Your task to perform on an android device: toggle notifications settings in the gmail app Image 0: 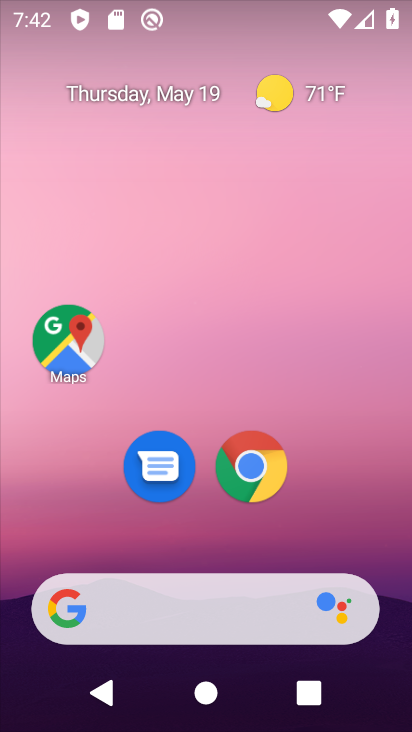
Step 0: drag from (331, 533) to (253, 9)
Your task to perform on an android device: toggle notifications settings in the gmail app Image 1: 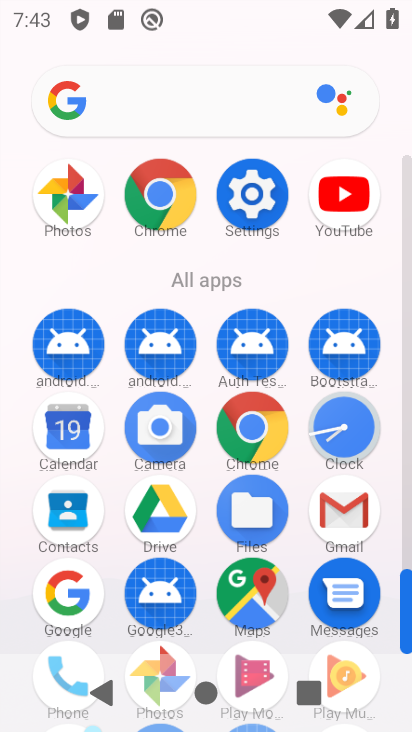
Step 1: click (343, 502)
Your task to perform on an android device: toggle notifications settings in the gmail app Image 2: 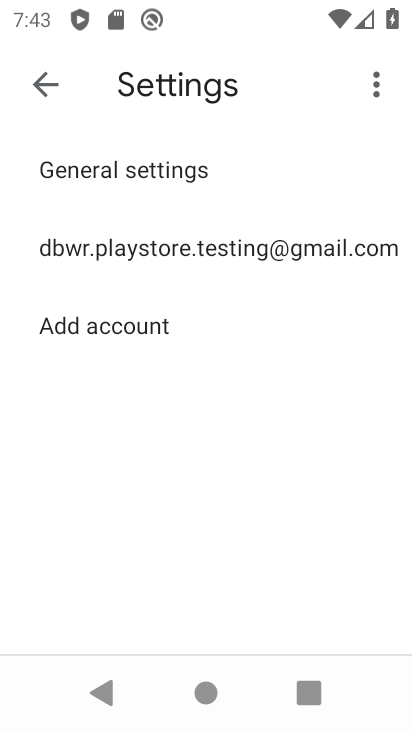
Step 2: click (140, 245)
Your task to perform on an android device: toggle notifications settings in the gmail app Image 3: 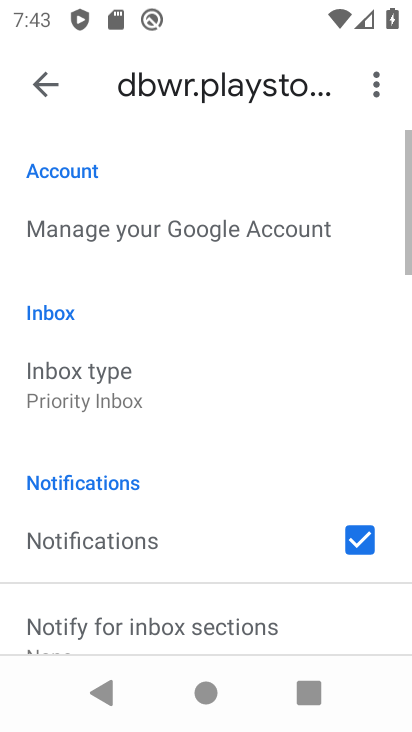
Step 3: drag from (197, 586) to (230, 150)
Your task to perform on an android device: toggle notifications settings in the gmail app Image 4: 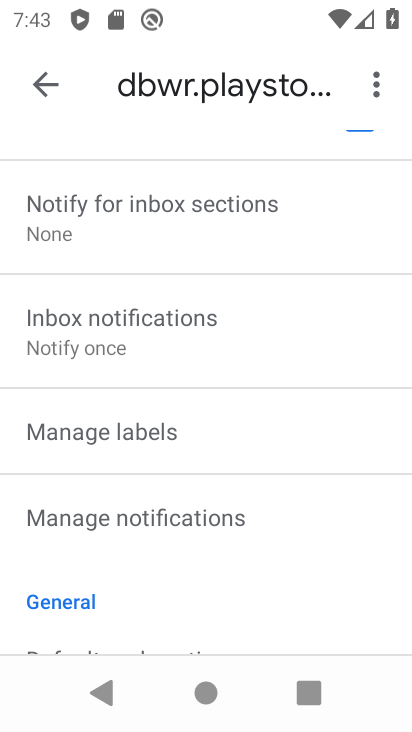
Step 4: click (111, 514)
Your task to perform on an android device: toggle notifications settings in the gmail app Image 5: 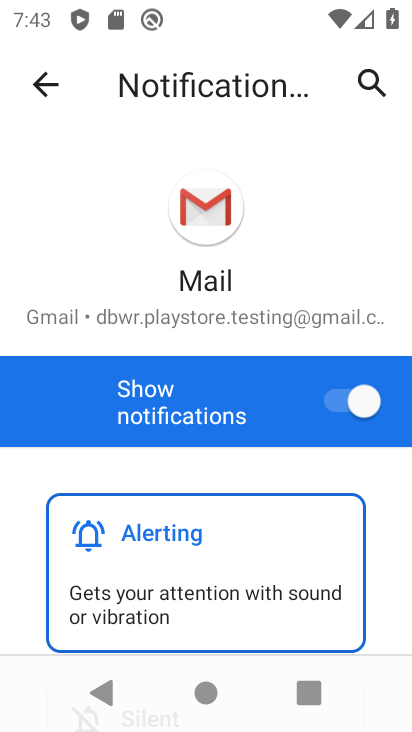
Step 5: click (356, 394)
Your task to perform on an android device: toggle notifications settings in the gmail app Image 6: 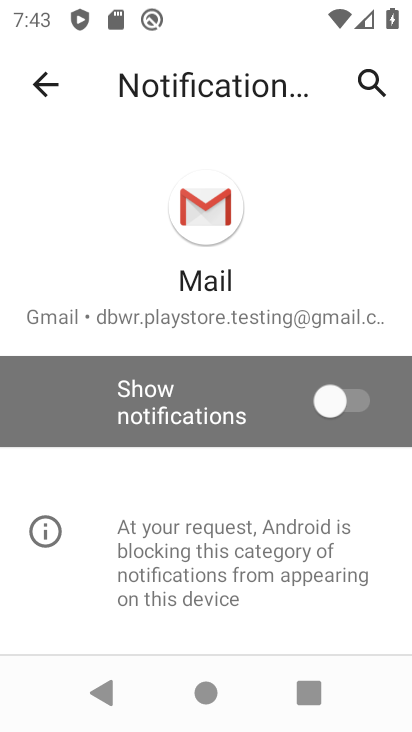
Step 6: task complete